Your task to perform on an android device: Open Google Chrome Image 0: 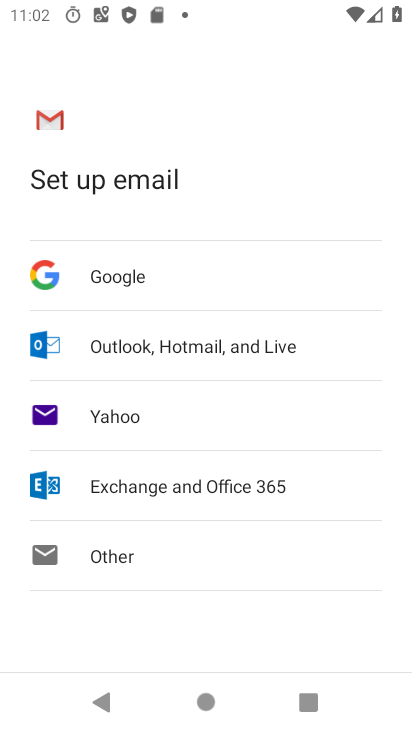
Step 0: press home button
Your task to perform on an android device: Open Google Chrome Image 1: 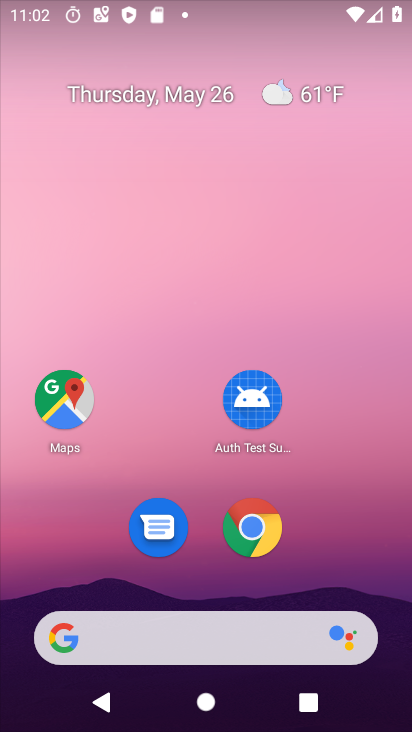
Step 1: drag from (364, 559) to (376, 19)
Your task to perform on an android device: Open Google Chrome Image 2: 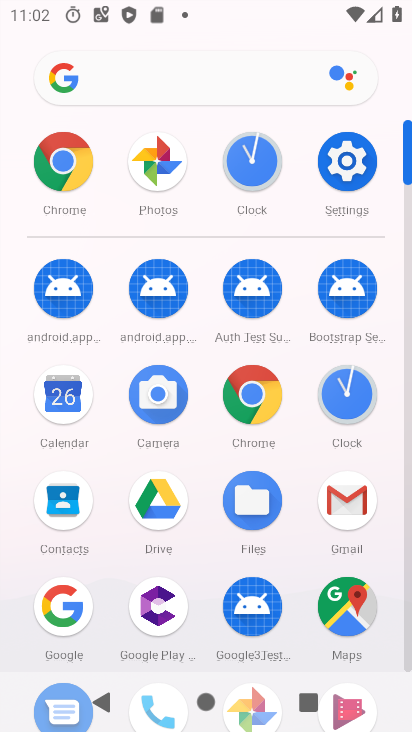
Step 2: click (56, 169)
Your task to perform on an android device: Open Google Chrome Image 3: 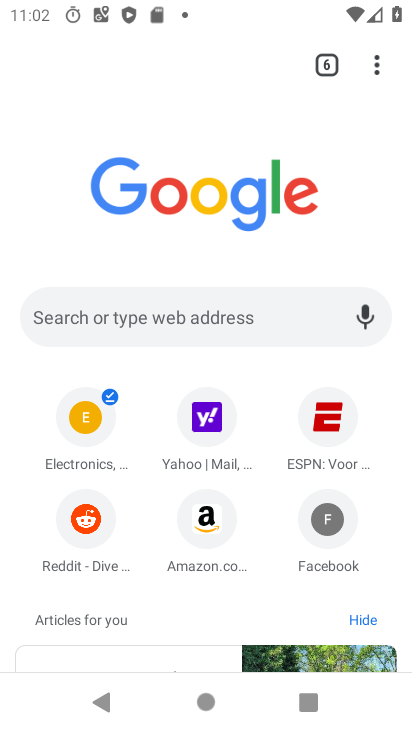
Step 3: press home button
Your task to perform on an android device: Open Google Chrome Image 4: 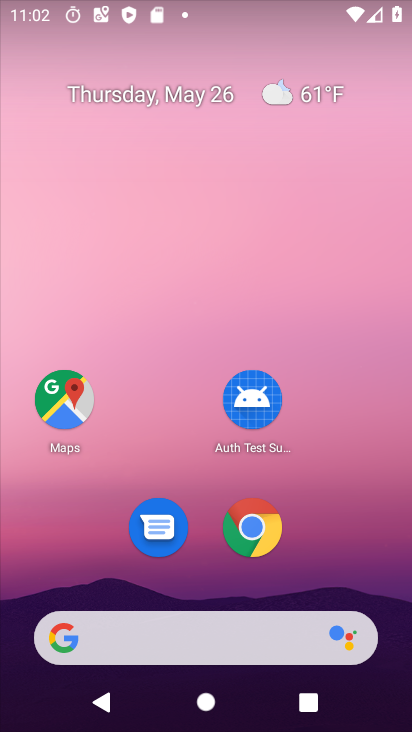
Step 4: drag from (393, 483) to (410, 154)
Your task to perform on an android device: Open Google Chrome Image 5: 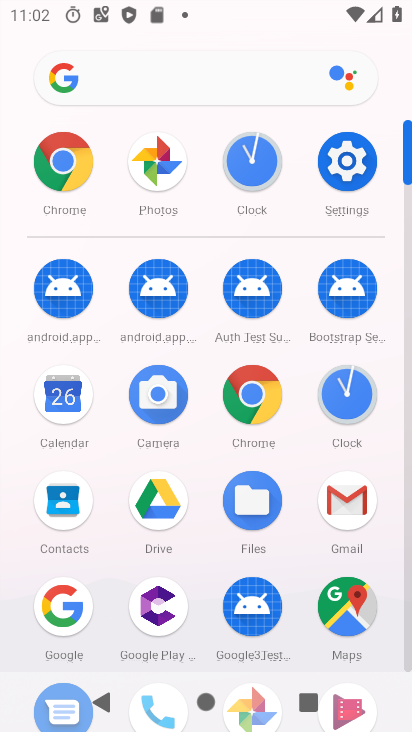
Step 5: click (241, 394)
Your task to perform on an android device: Open Google Chrome Image 6: 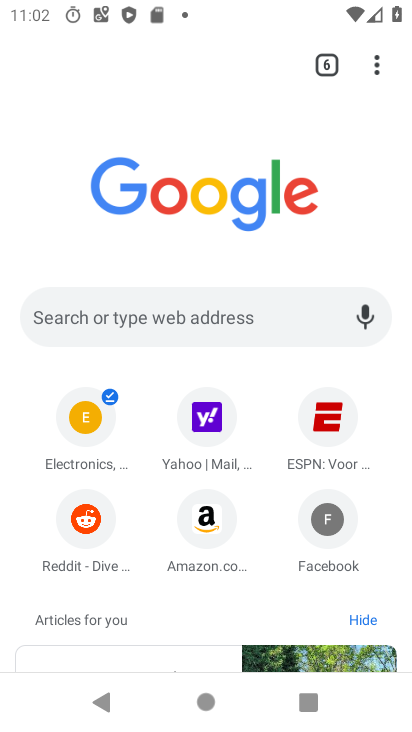
Step 6: task complete